Your task to perform on an android device: choose inbox layout in the gmail app Image 0: 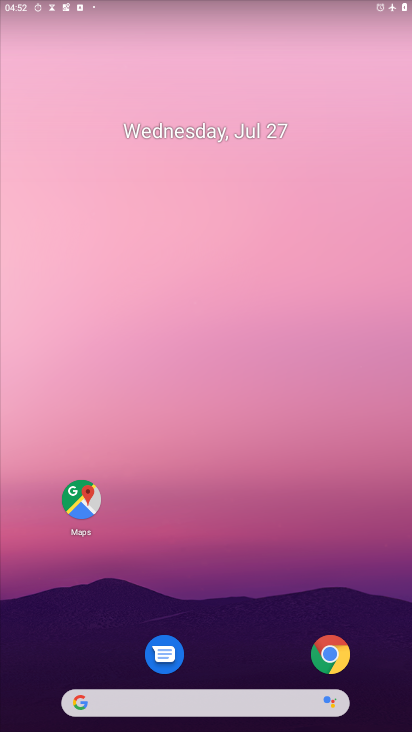
Step 0: drag from (234, 635) to (250, 46)
Your task to perform on an android device: choose inbox layout in the gmail app Image 1: 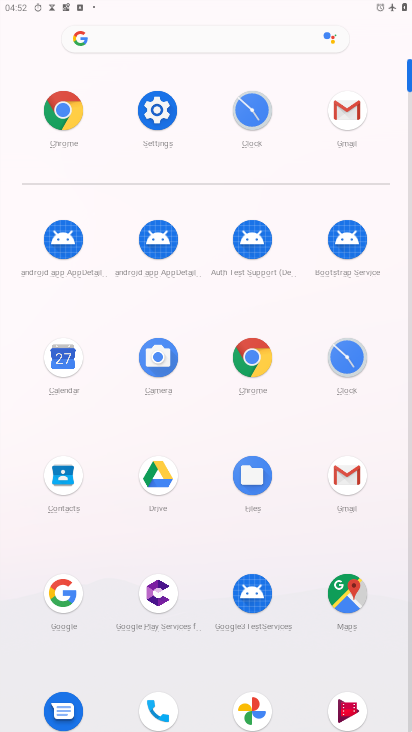
Step 1: click (358, 471)
Your task to perform on an android device: choose inbox layout in the gmail app Image 2: 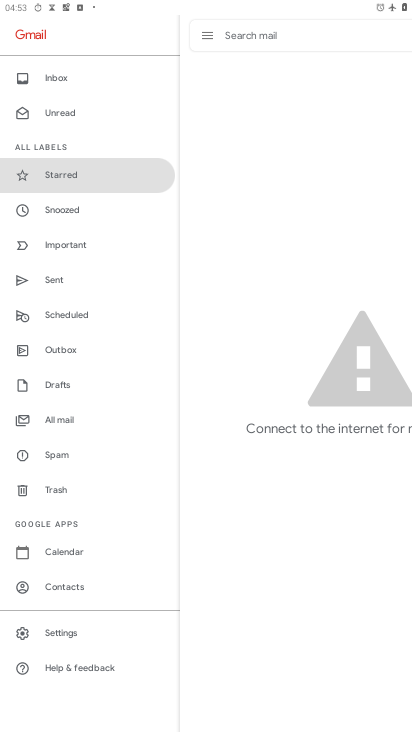
Step 2: click (74, 633)
Your task to perform on an android device: choose inbox layout in the gmail app Image 3: 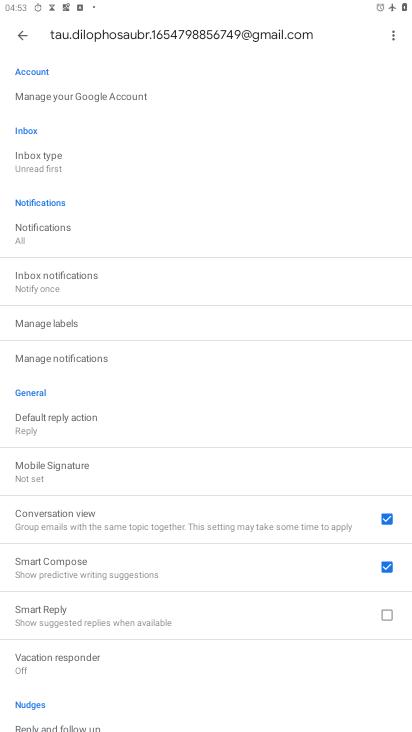
Step 3: click (67, 160)
Your task to perform on an android device: choose inbox layout in the gmail app Image 4: 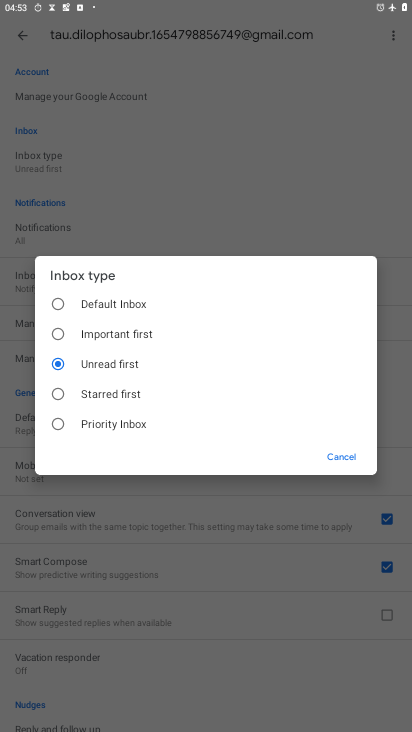
Step 4: click (58, 300)
Your task to perform on an android device: choose inbox layout in the gmail app Image 5: 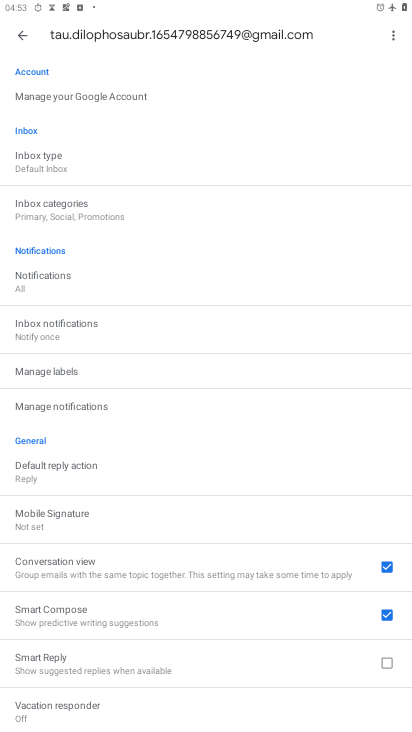
Step 5: task complete